Your task to perform on an android device: find which apps use the phone's location Image 0: 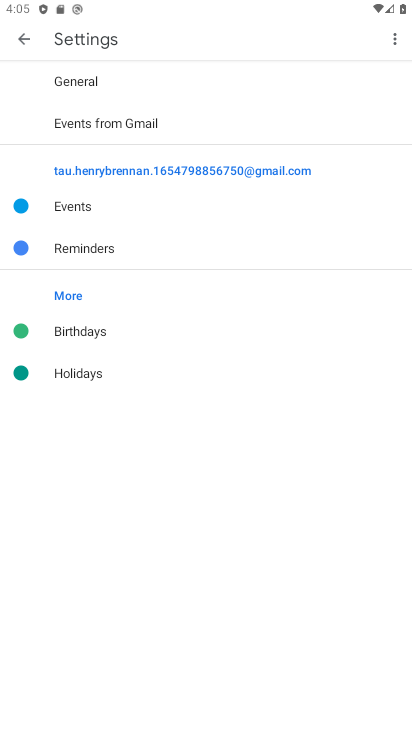
Step 0: press home button
Your task to perform on an android device: find which apps use the phone's location Image 1: 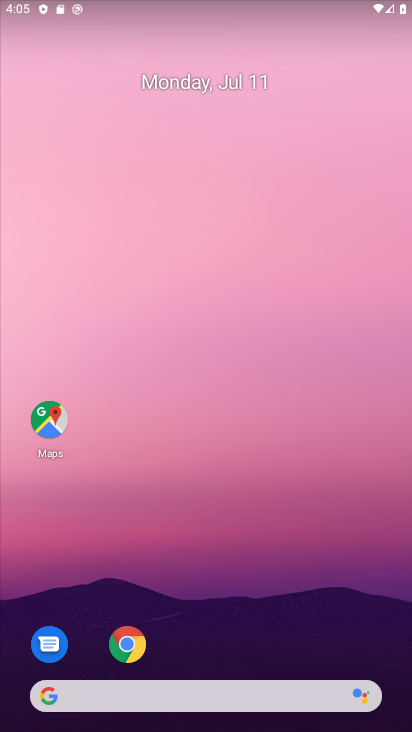
Step 1: drag from (181, 639) to (174, 123)
Your task to perform on an android device: find which apps use the phone's location Image 2: 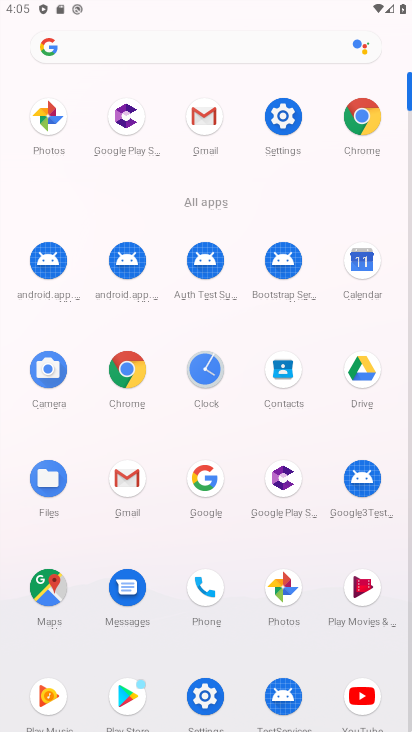
Step 2: click (276, 120)
Your task to perform on an android device: find which apps use the phone's location Image 3: 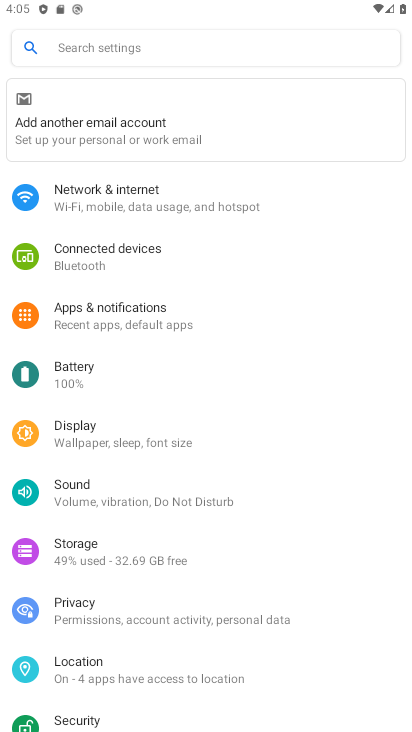
Step 3: click (116, 665)
Your task to perform on an android device: find which apps use the phone's location Image 4: 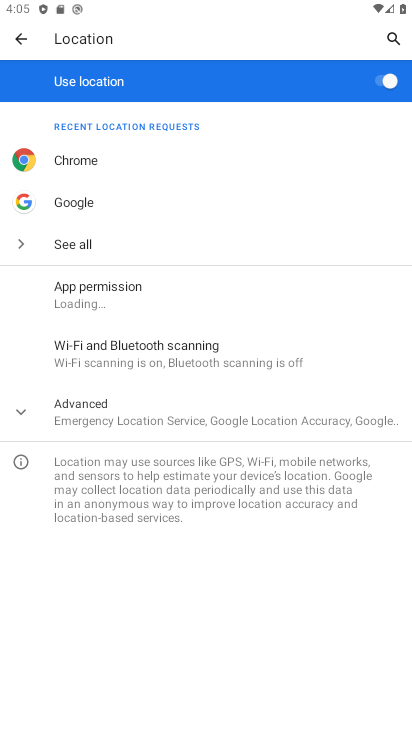
Step 4: click (118, 306)
Your task to perform on an android device: find which apps use the phone's location Image 5: 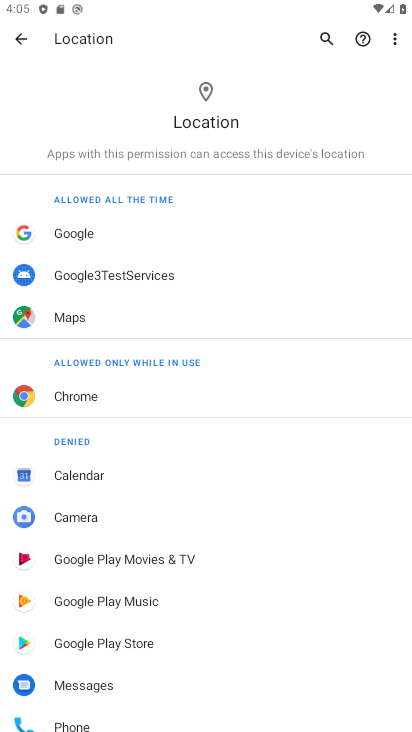
Step 5: task complete